Your task to perform on an android device: find which apps use the phone's location Image 0: 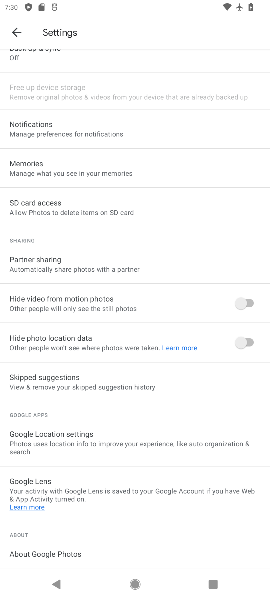
Step 0: press home button
Your task to perform on an android device: find which apps use the phone's location Image 1: 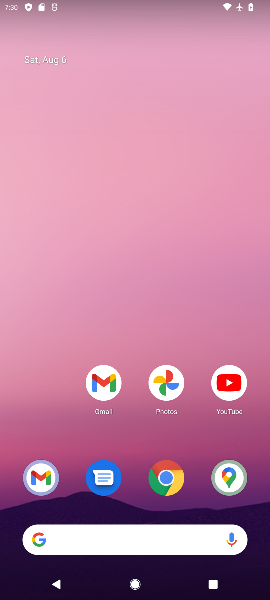
Step 1: drag from (152, 293) to (154, 4)
Your task to perform on an android device: find which apps use the phone's location Image 2: 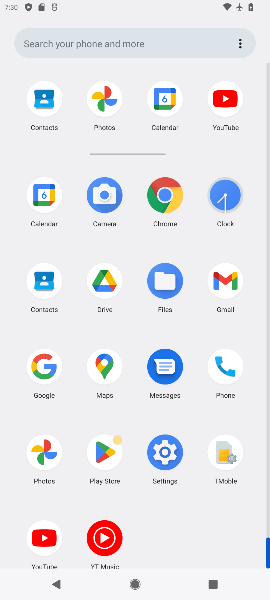
Step 2: click (168, 448)
Your task to perform on an android device: find which apps use the phone's location Image 3: 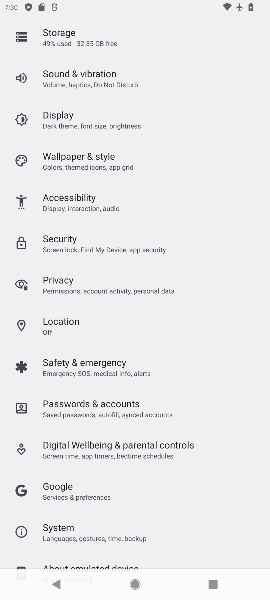
Step 3: drag from (160, 55) to (175, 313)
Your task to perform on an android device: find which apps use the phone's location Image 4: 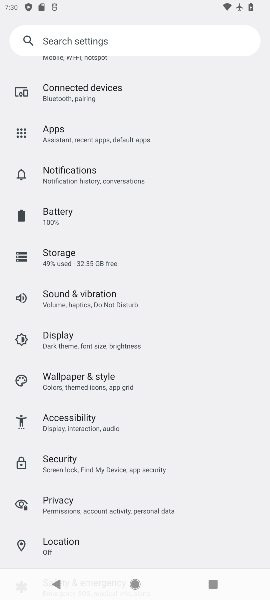
Step 4: drag from (129, 67) to (158, 336)
Your task to perform on an android device: find which apps use the phone's location Image 5: 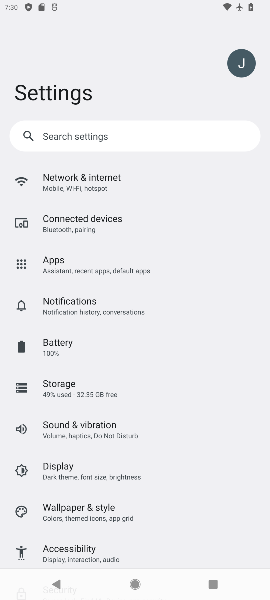
Step 5: drag from (92, 449) to (74, 235)
Your task to perform on an android device: find which apps use the phone's location Image 6: 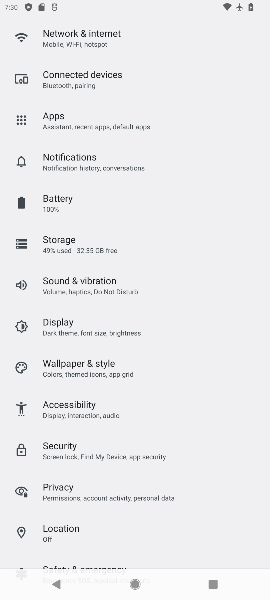
Step 6: click (92, 534)
Your task to perform on an android device: find which apps use the phone's location Image 7: 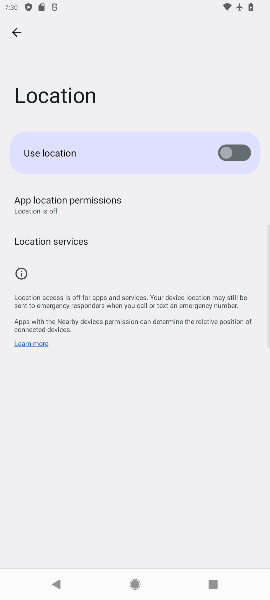
Step 7: click (38, 203)
Your task to perform on an android device: find which apps use the phone's location Image 8: 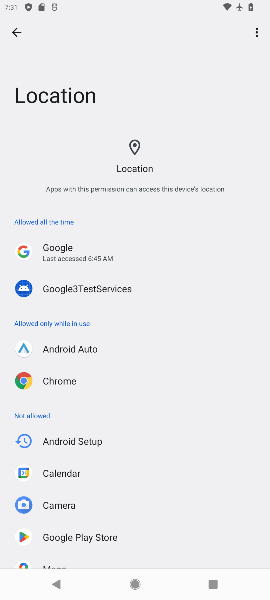
Step 8: task complete